Your task to perform on an android device: Toggle the flashlight Image 0: 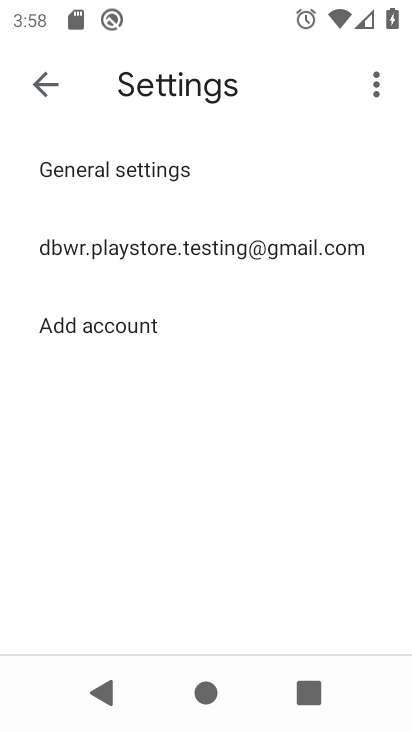
Step 0: drag from (257, 0) to (195, 504)
Your task to perform on an android device: Toggle the flashlight Image 1: 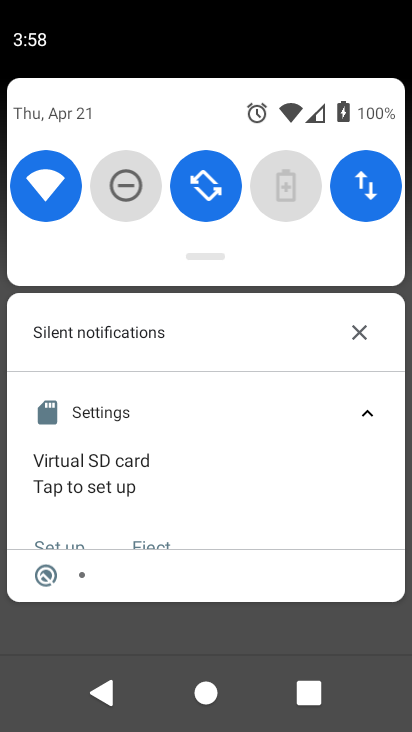
Step 1: task complete